Your task to perform on an android device: Go to display settings Image 0: 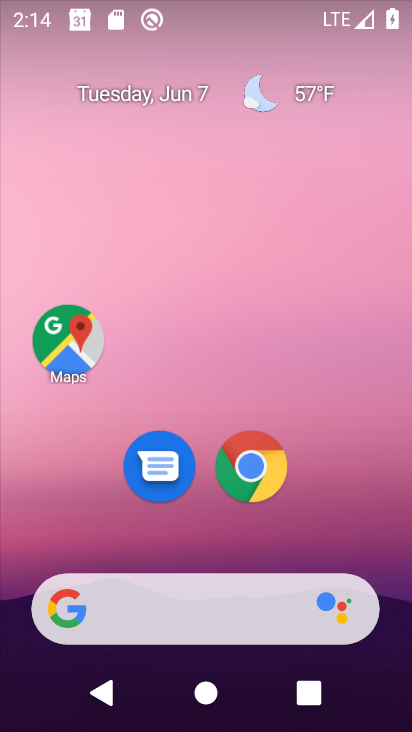
Step 0: drag from (213, 522) to (312, 15)
Your task to perform on an android device: Go to display settings Image 1: 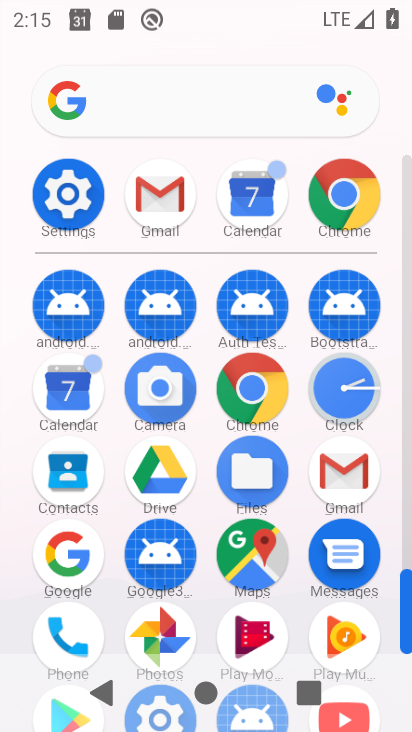
Step 1: click (68, 196)
Your task to perform on an android device: Go to display settings Image 2: 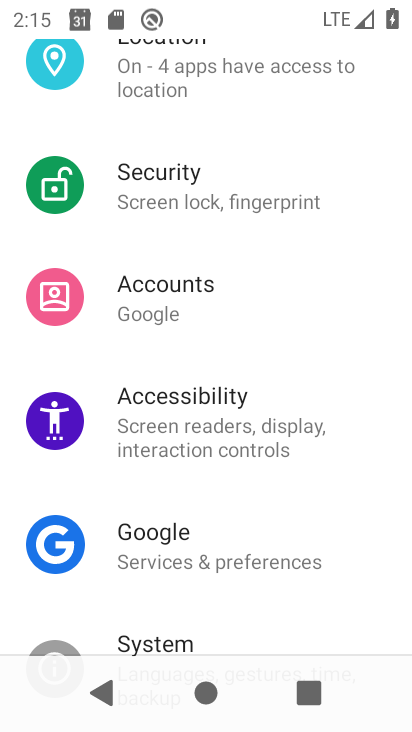
Step 2: drag from (207, 213) to (195, 616)
Your task to perform on an android device: Go to display settings Image 3: 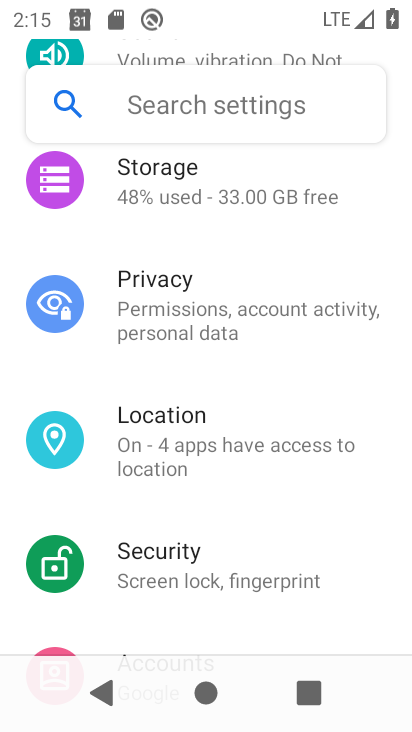
Step 3: drag from (211, 263) to (195, 600)
Your task to perform on an android device: Go to display settings Image 4: 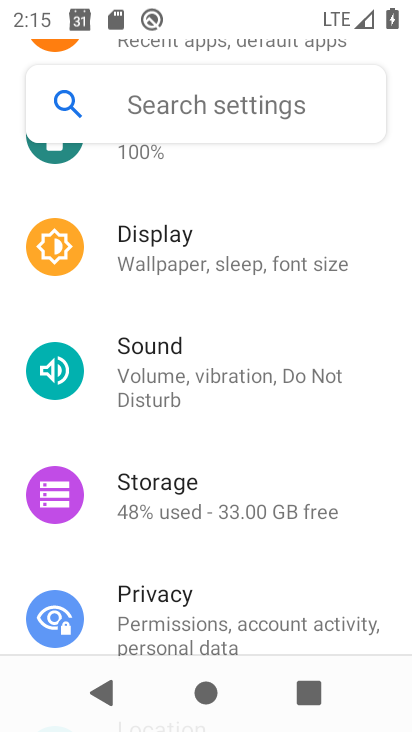
Step 4: click (191, 242)
Your task to perform on an android device: Go to display settings Image 5: 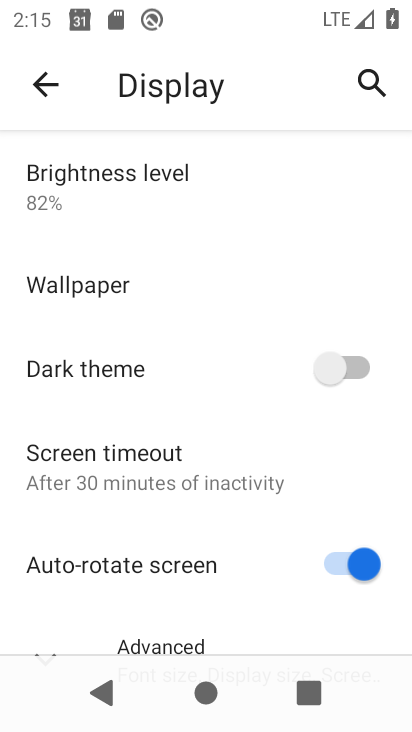
Step 5: task complete